Your task to perform on an android device: Open privacy settings Image 0: 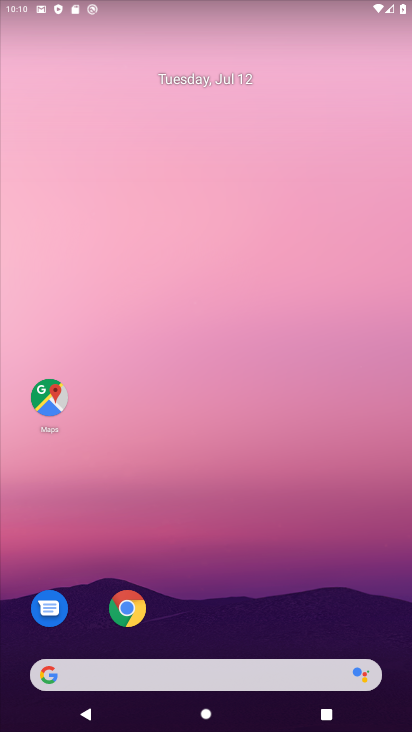
Step 0: drag from (140, 655) to (265, 155)
Your task to perform on an android device: Open privacy settings Image 1: 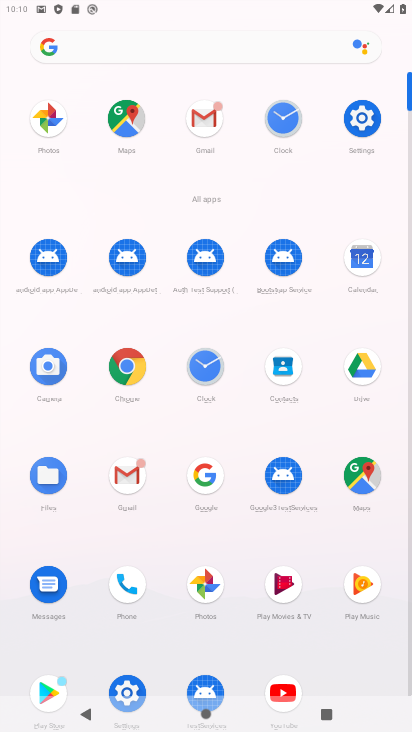
Step 1: click (129, 360)
Your task to perform on an android device: Open privacy settings Image 2: 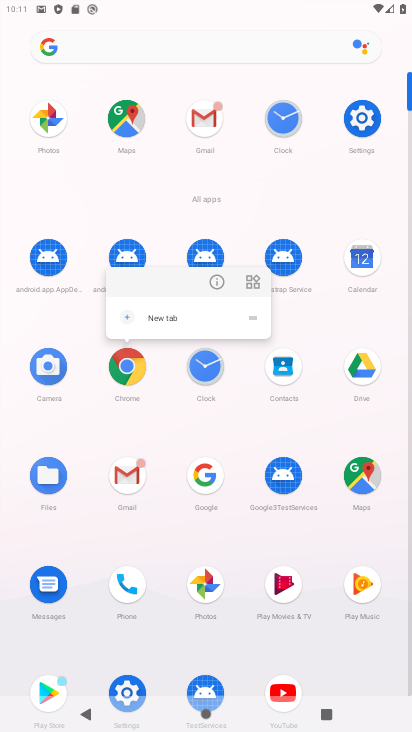
Step 2: click (125, 378)
Your task to perform on an android device: Open privacy settings Image 3: 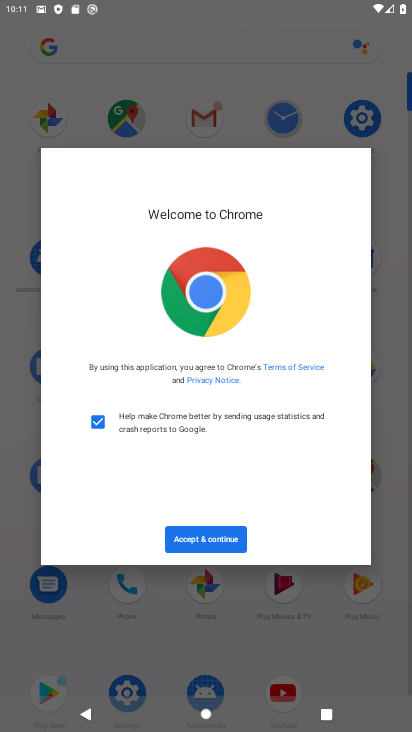
Step 3: click (214, 542)
Your task to perform on an android device: Open privacy settings Image 4: 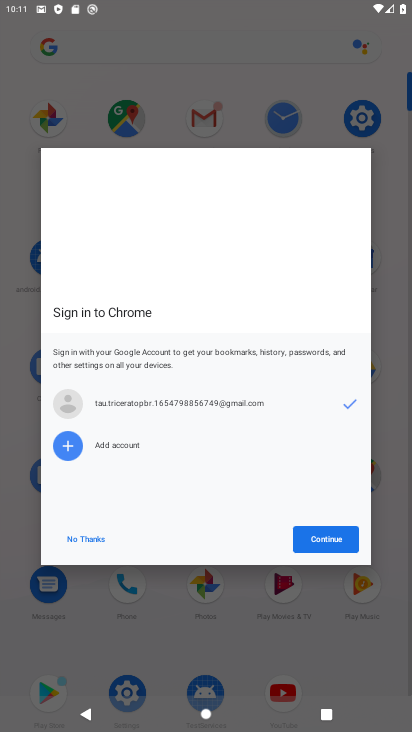
Step 4: click (323, 545)
Your task to perform on an android device: Open privacy settings Image 5: 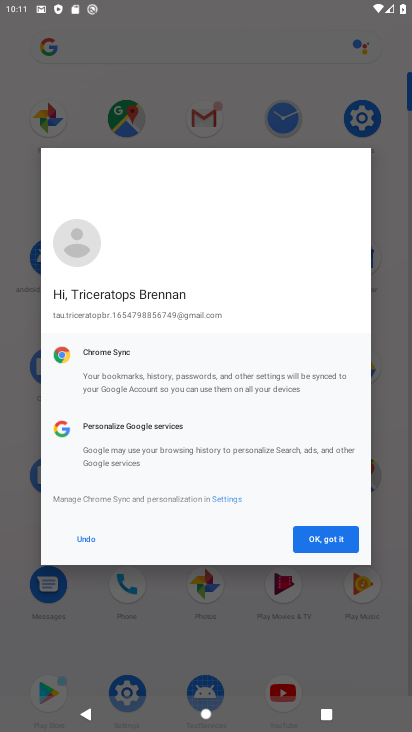
Step 5: click (319, 544)
Your task to perform on an android device: Open privacy settings Image 6: 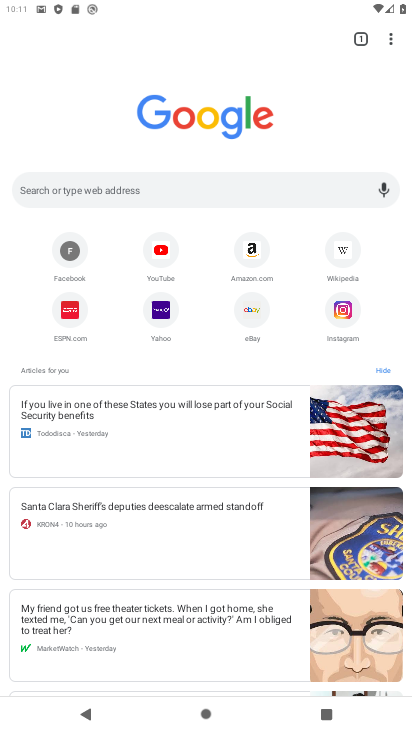
Step 6: drag from (405, 32) to (283, 322)
Your task to perform on an android device: Open privacy settings Image 7: 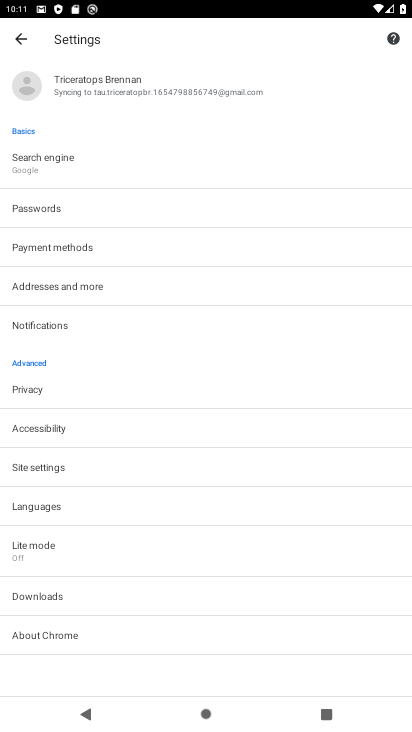
Step 7: click (80, 394)
Your task to perform on an android device: Open privacy settings Image 8: 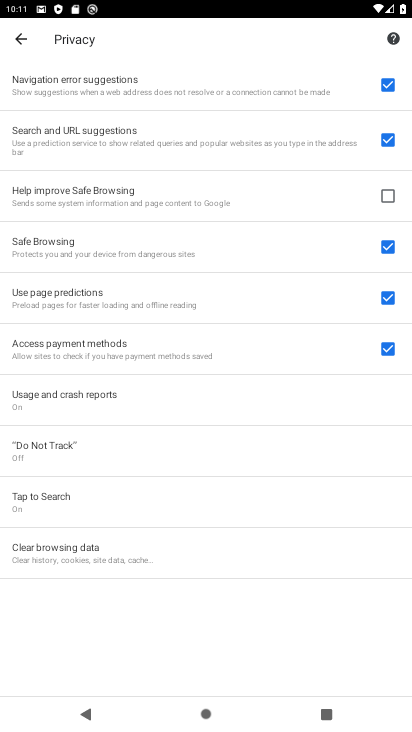
Step 8: task complete